Your task to perform on an android device: uninstall "Google Pay: Save, Pay, Manage" Image 0: 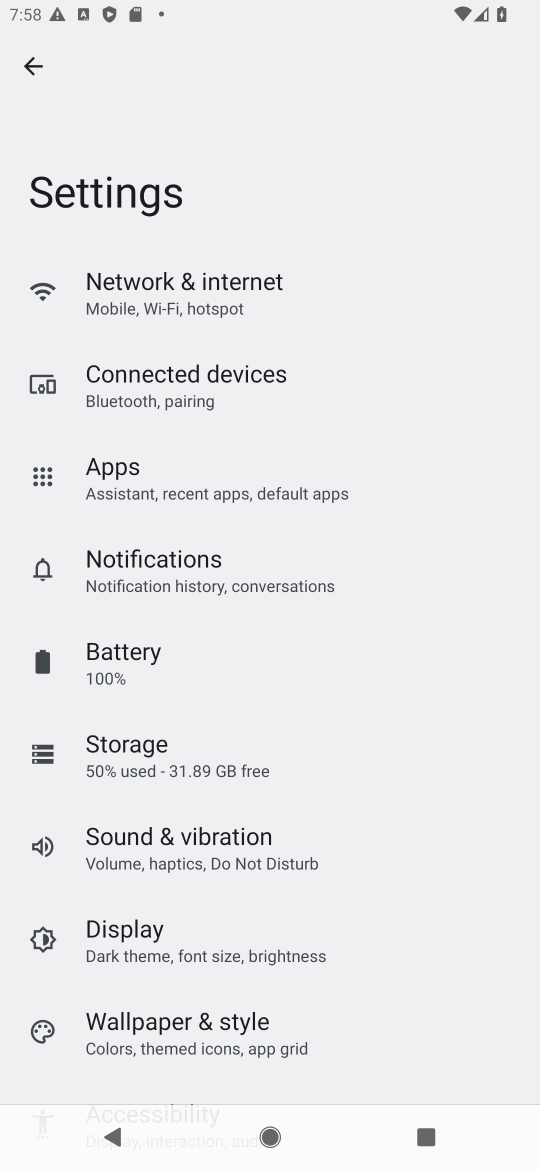
Step 0: press home button
Your task to perform on an android device: uninstall "Google Pay: Save, Pay, Manage" Image 1: 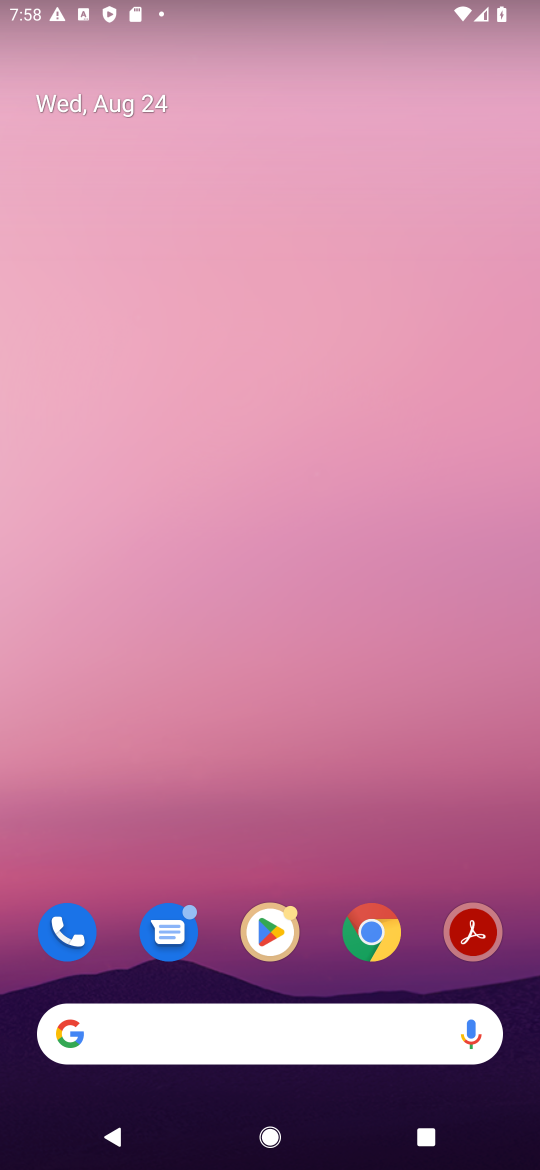
Step 1: click (262, 918)
Your task to perform on an android device: uninstall "Google Pay: Save, Pay, Manage" Image 2: 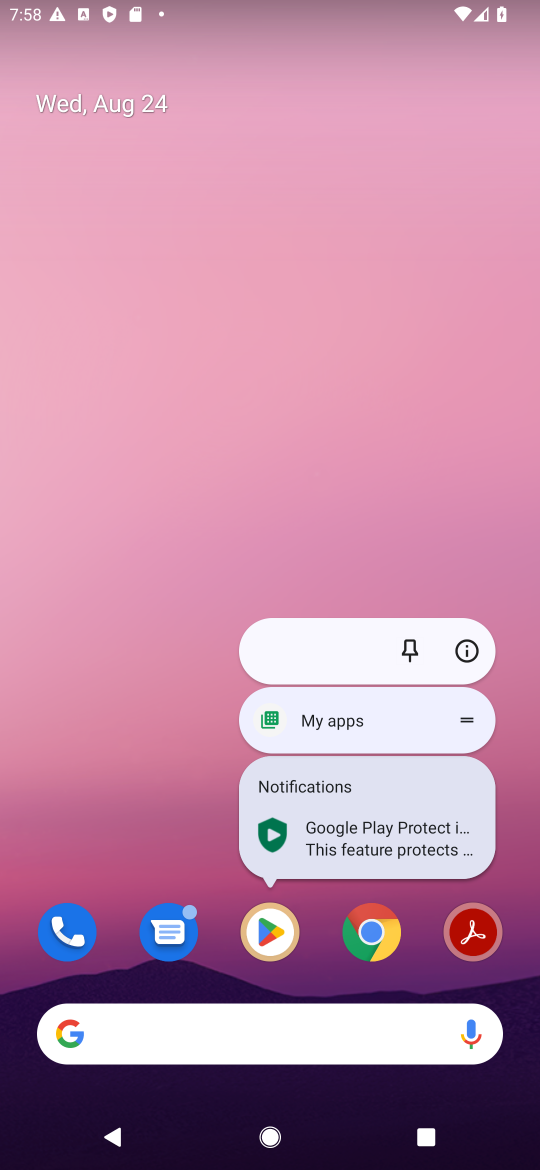
Step 2: click (274, 929)
Your task to perform on an android device: uninstall "Google Pay: Save, Pay, Manage" Image 3: 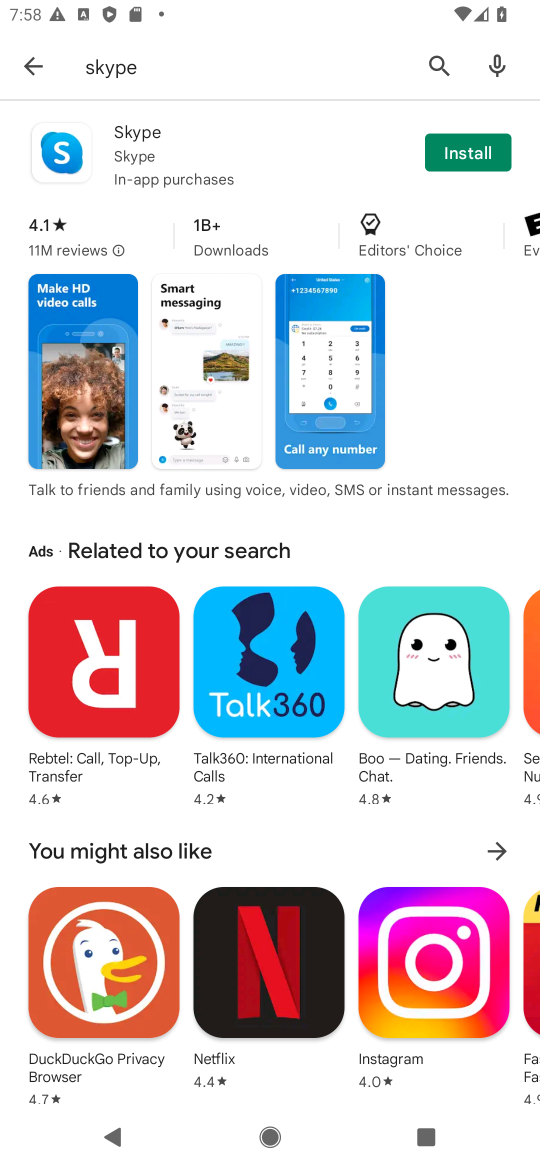
Step 3: click (272, 934)
Your task to perform on an android device: uninstall "Google Pay: Save, Pay, Manage" Image 4: 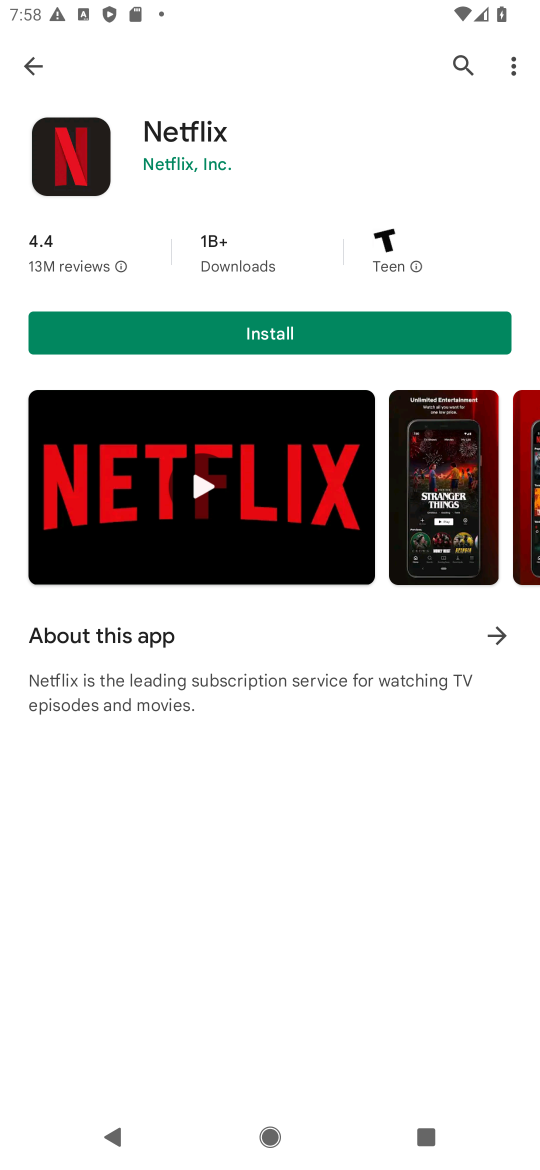
Step 4: click (156, 76)
Your task to perform on an android device: uninstall "Google Pay: Save, Pay, Manage" Image 5: 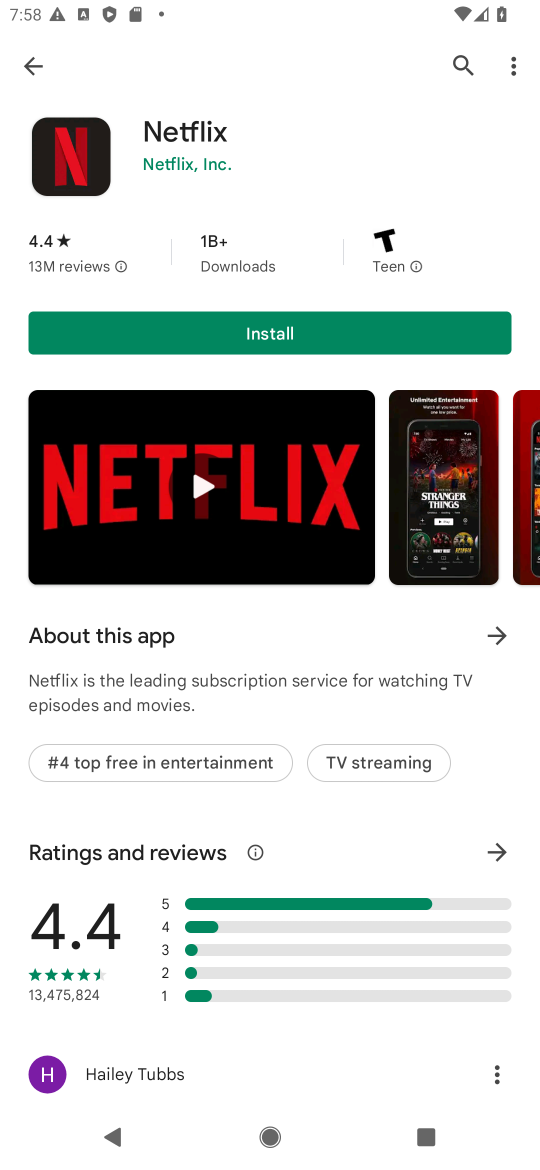
Step 5: click (32, 79)
Your task to perform on an android device: uninstall "Google Pay: Save, Pay, Manage" Image 6: 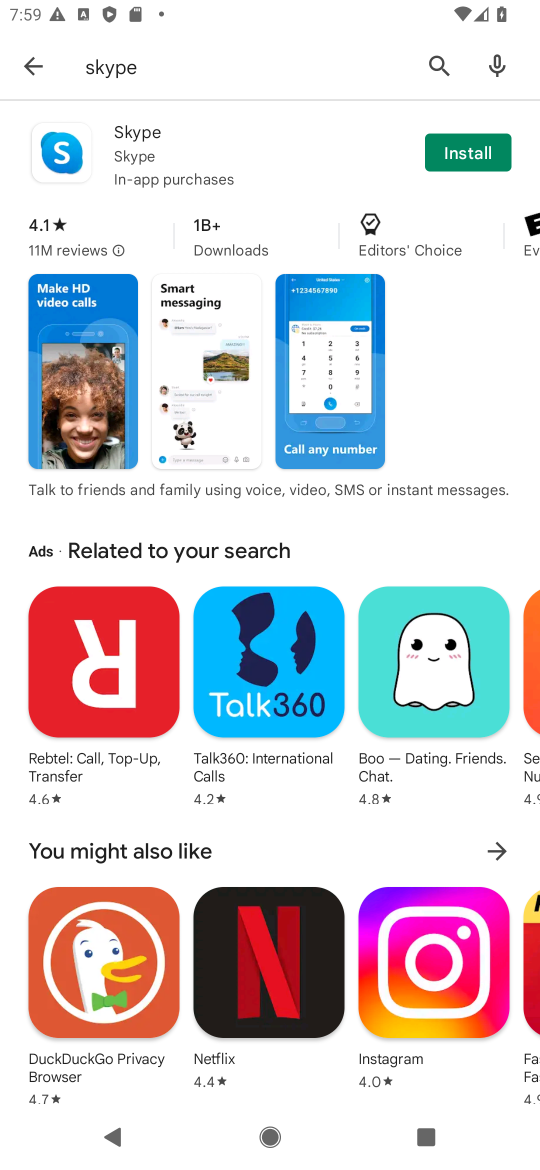
Step 6: click (209, 68)
Your task to perform on an android device: uninstall "Google Pay: Save, Pay, Manage" Image 7: 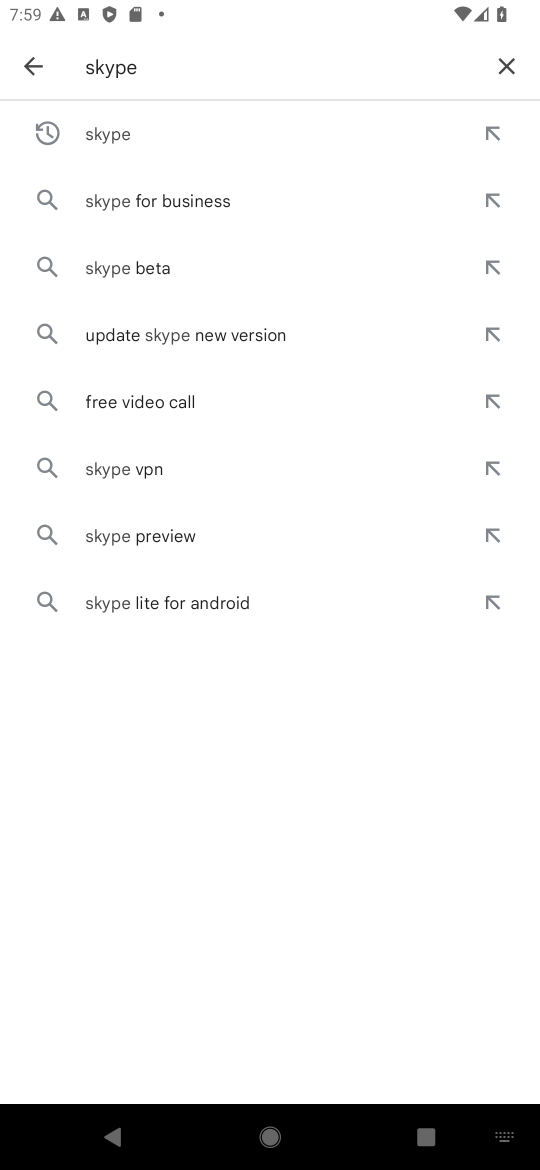
Step 7: click (499, 68)
Your task to perform on an android device: uninstall "Google Pay: Save, Pay, Manage" Image 8: 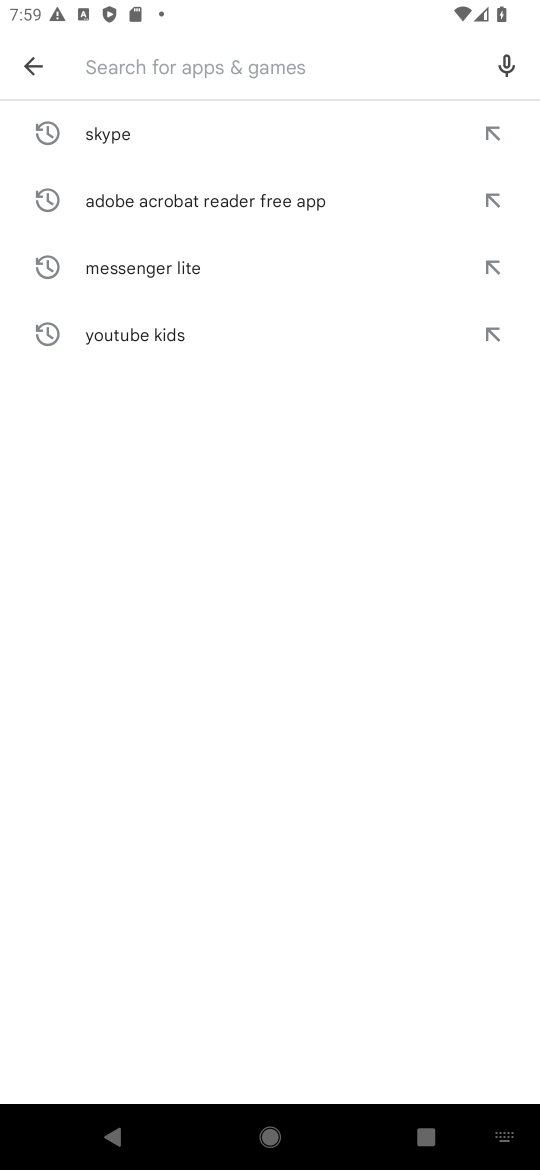
Step 8: type "google pay"
Your task to perform on an android device: uninstall "Google Pay: Save, Pay, Manage" Image 9: 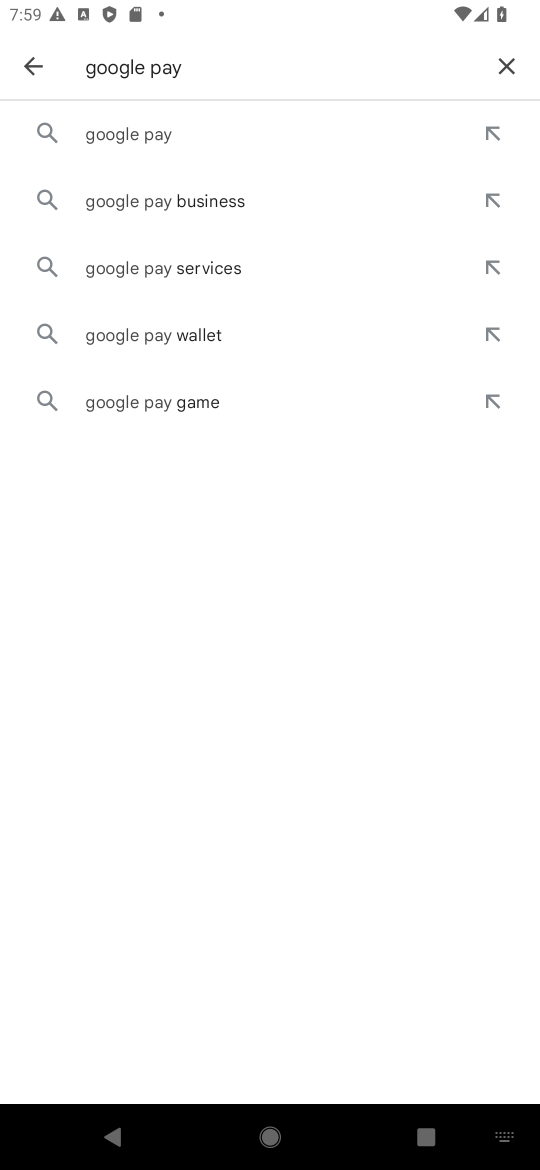
Step 9: click (168, 122)
Your task to perform on an android device: uninstall "Google Pay: Save, Pay, Manage" Image 10: 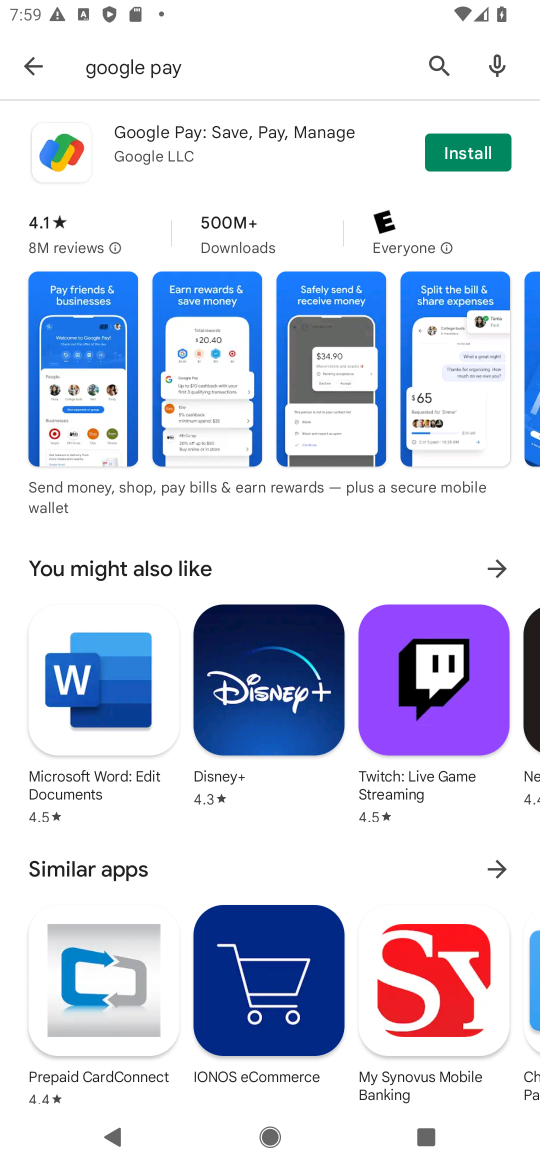
Step 10: task complete